Your task to perform on an android device: turn off wifi Image 0: 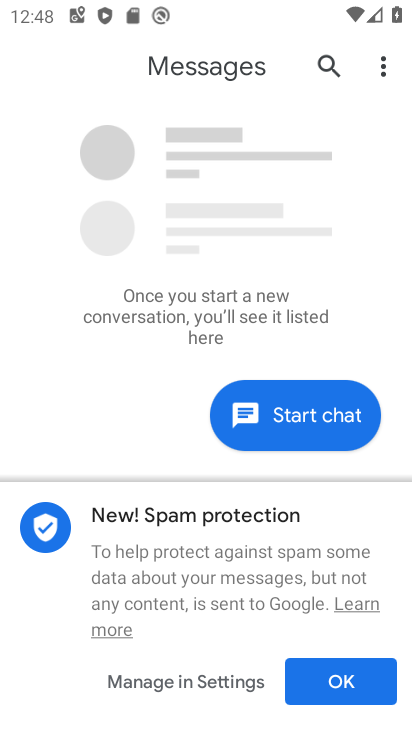
Step 0: press home button
Your task to perform on an android device: turn off wifi Image 1: 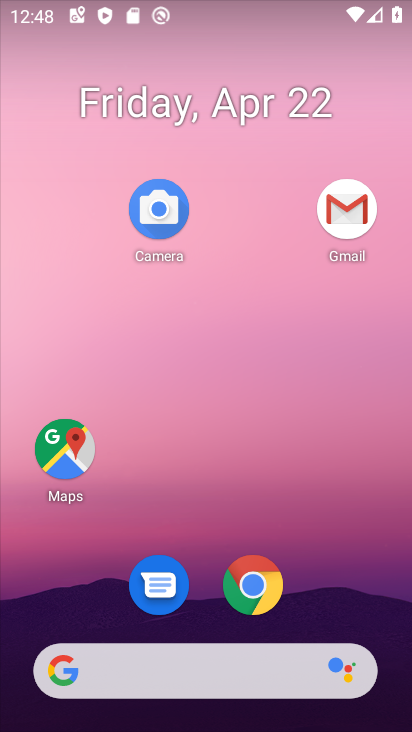
Step 1: drag from (300, 547) to (264, 163)
Your task to perform on an android device: turn off wifi Image 2: 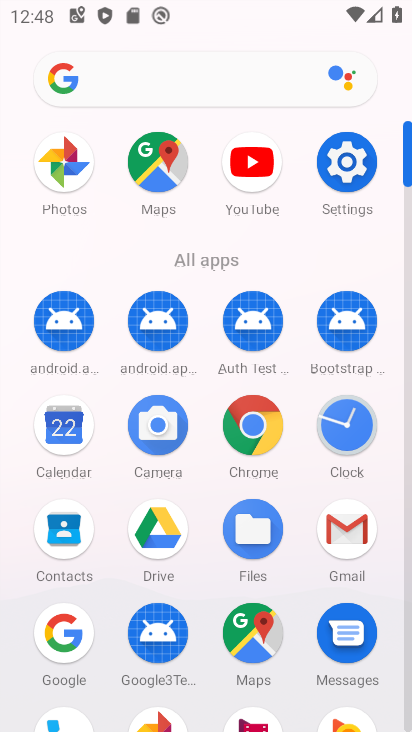
Step 2: click (342, 159)
Your task to perform on an android device: turn off wifi Image 3: 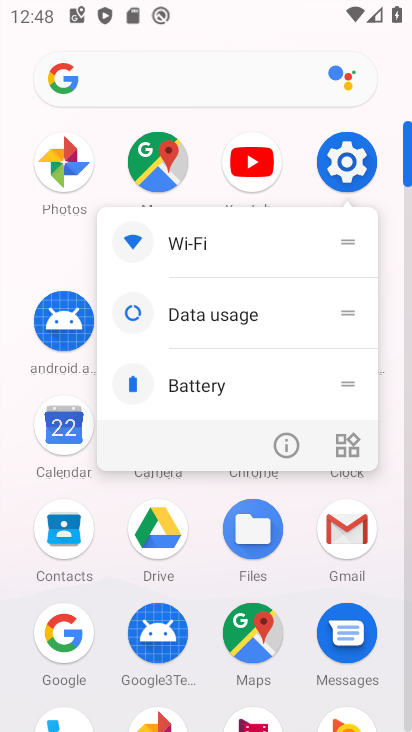
Step 3: click (342, 154)
Your task to perform on an android device: turn off wifi Image 4: 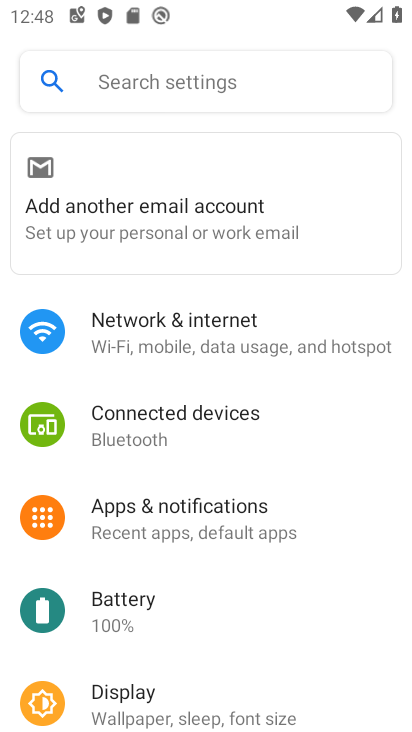
Step 4: click (288, 334)
Your task to perform on an android device: turn off wifi Image 5: 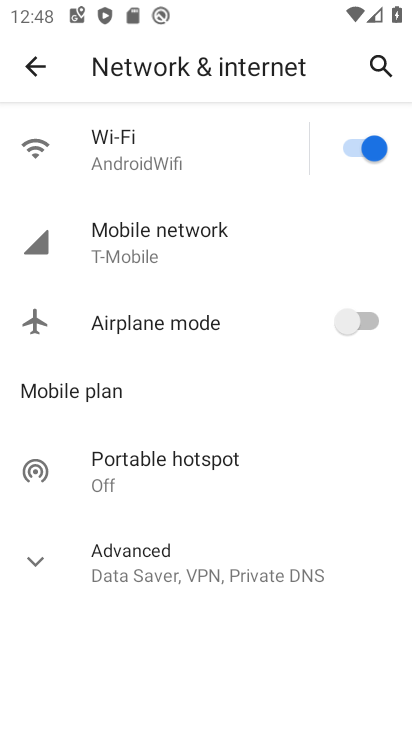
Step 5: click (353, 145)
Your task to perform on an android device: turn off wifi Image 6: 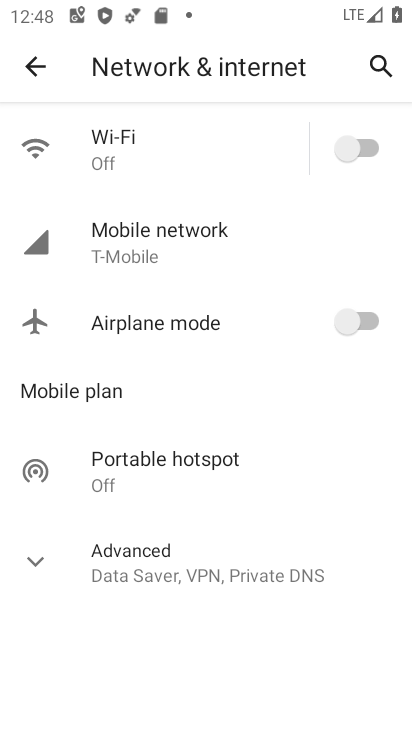
Step 6: task complete